Your task to perform on an android device: open app "Yahoo Mail" (install if not already installed) Image 0: 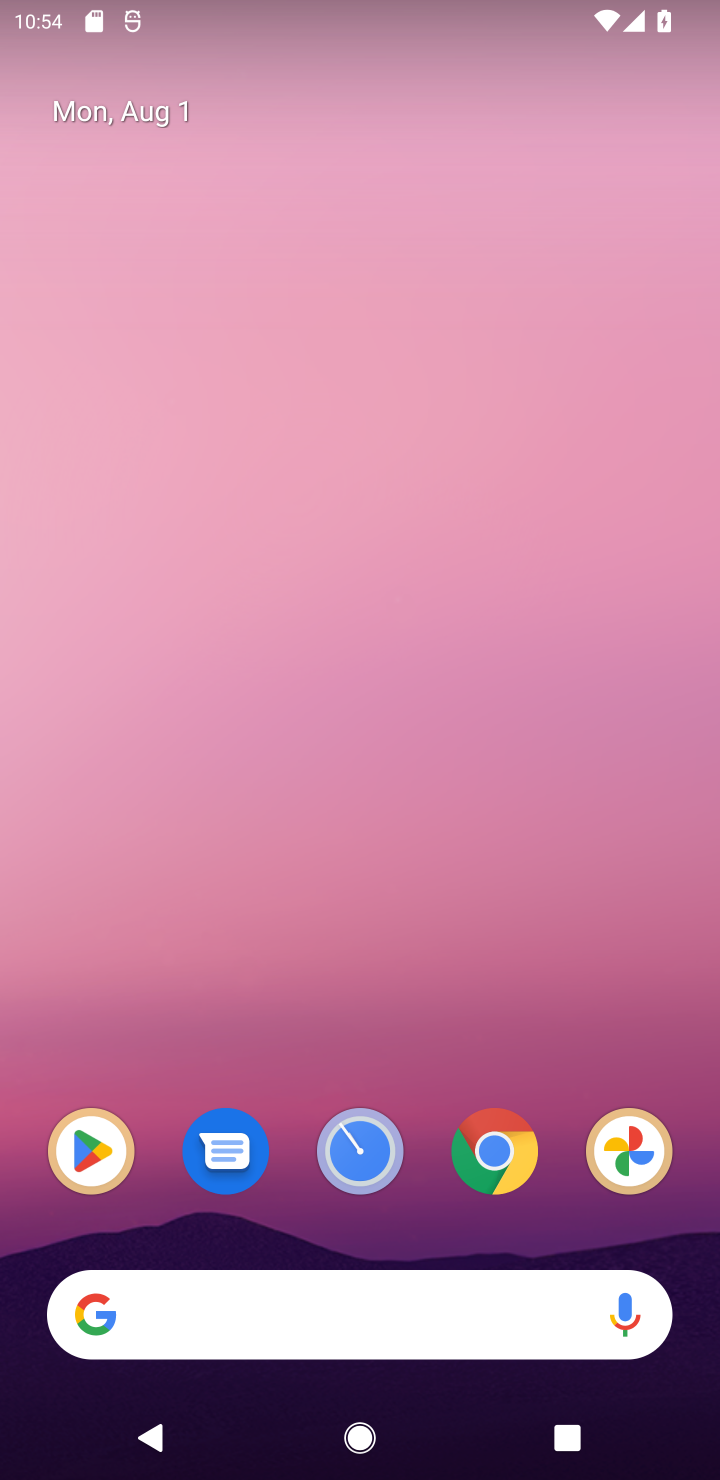
Step 0: drag from (387, 1272) to (399, 58)
Your task to perform on an android device: open app "Yahoo Mail" (install if not already installed) Image 1: 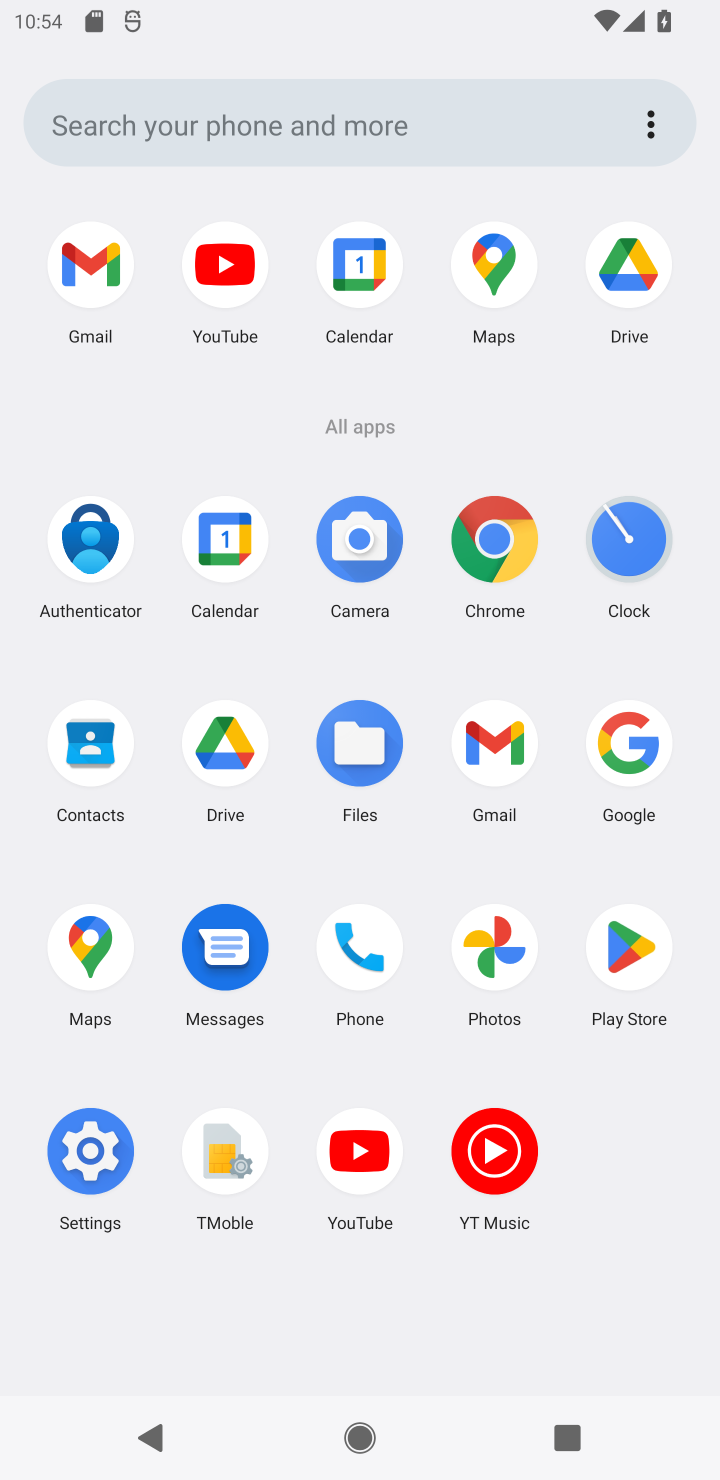
Step 1: click (634, 962)
Your task to perform on an android device: open app "Yahoo Mail" (install if not already installed) Image 2: 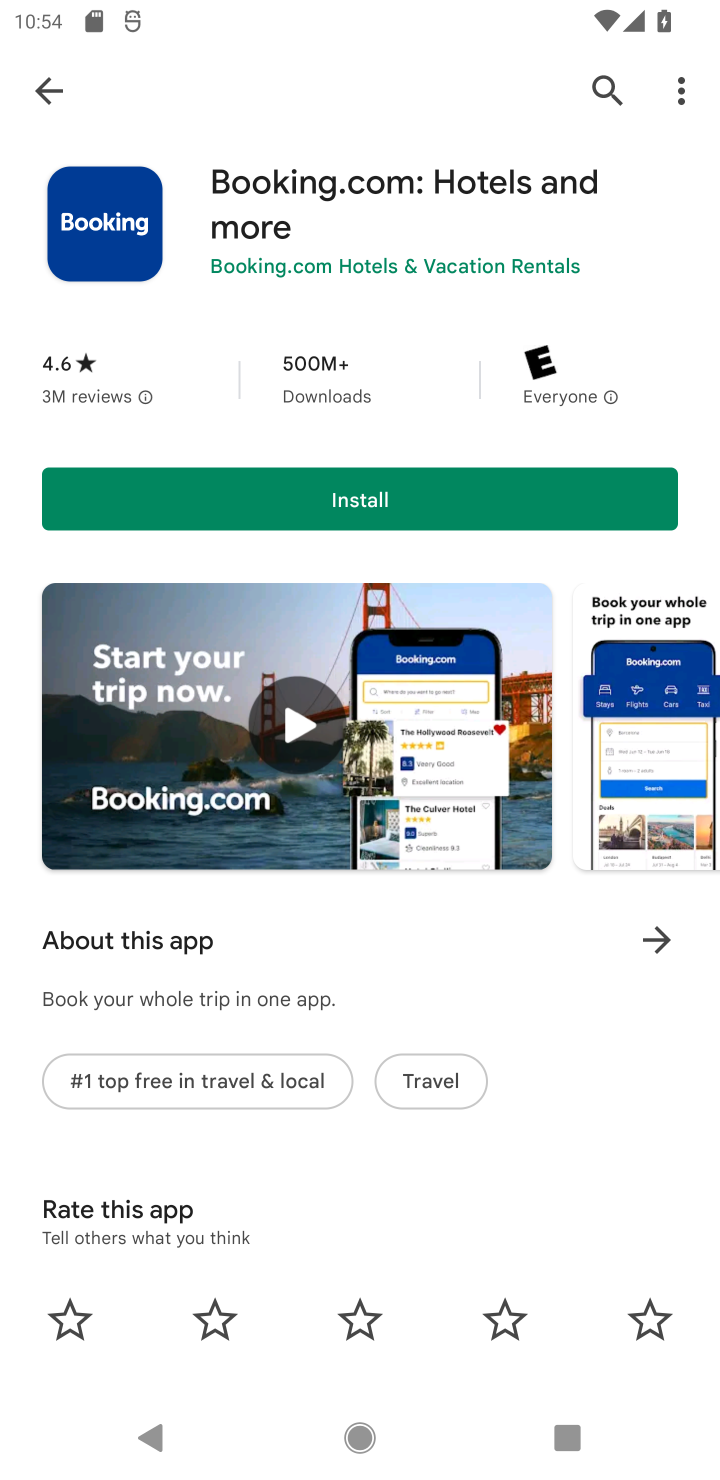
Step 2: click (46, 60)
Your task to perform on an android device: open app "Yahoo Mail" (install if not already installed) Image 3: 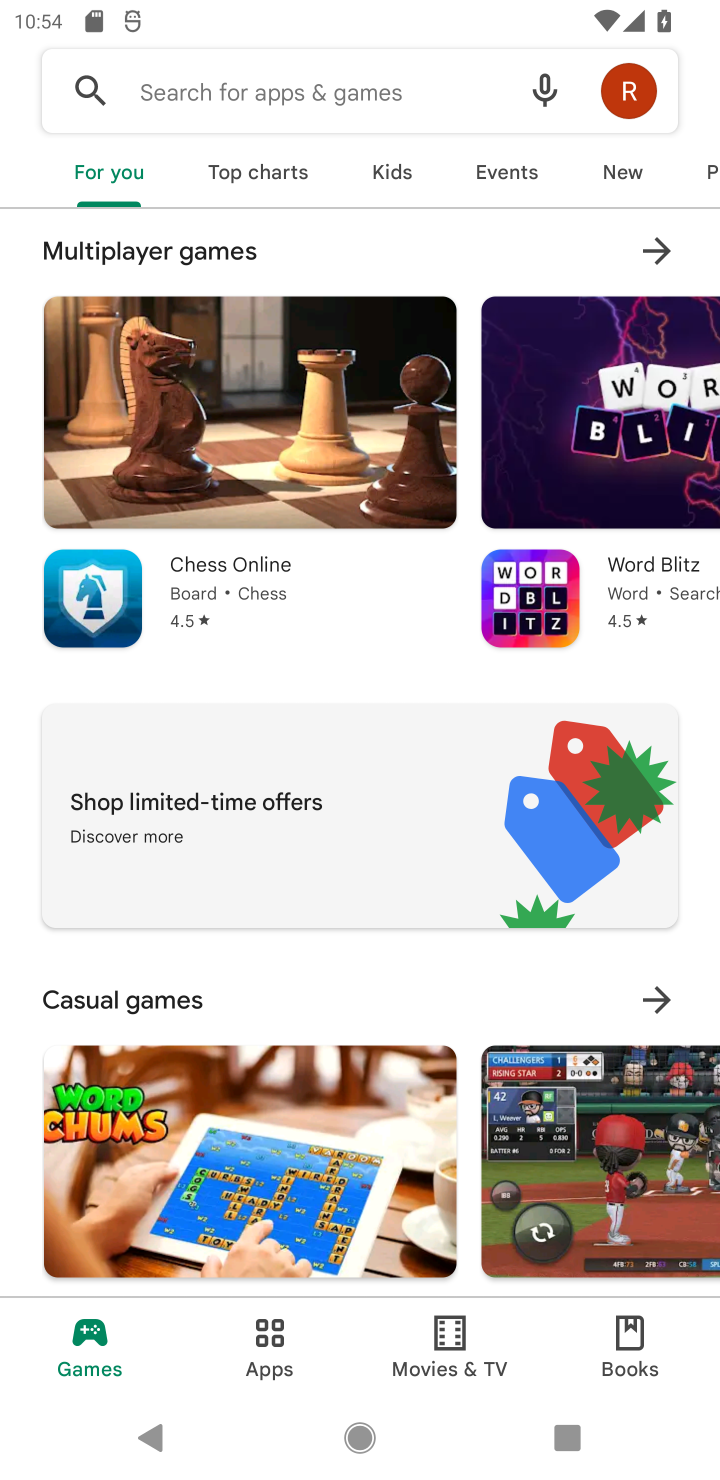
Step 3: click (190, 73)
Your task to perform on an android device: open app "Yahoo Mail" (install if not already installed) Image 4: 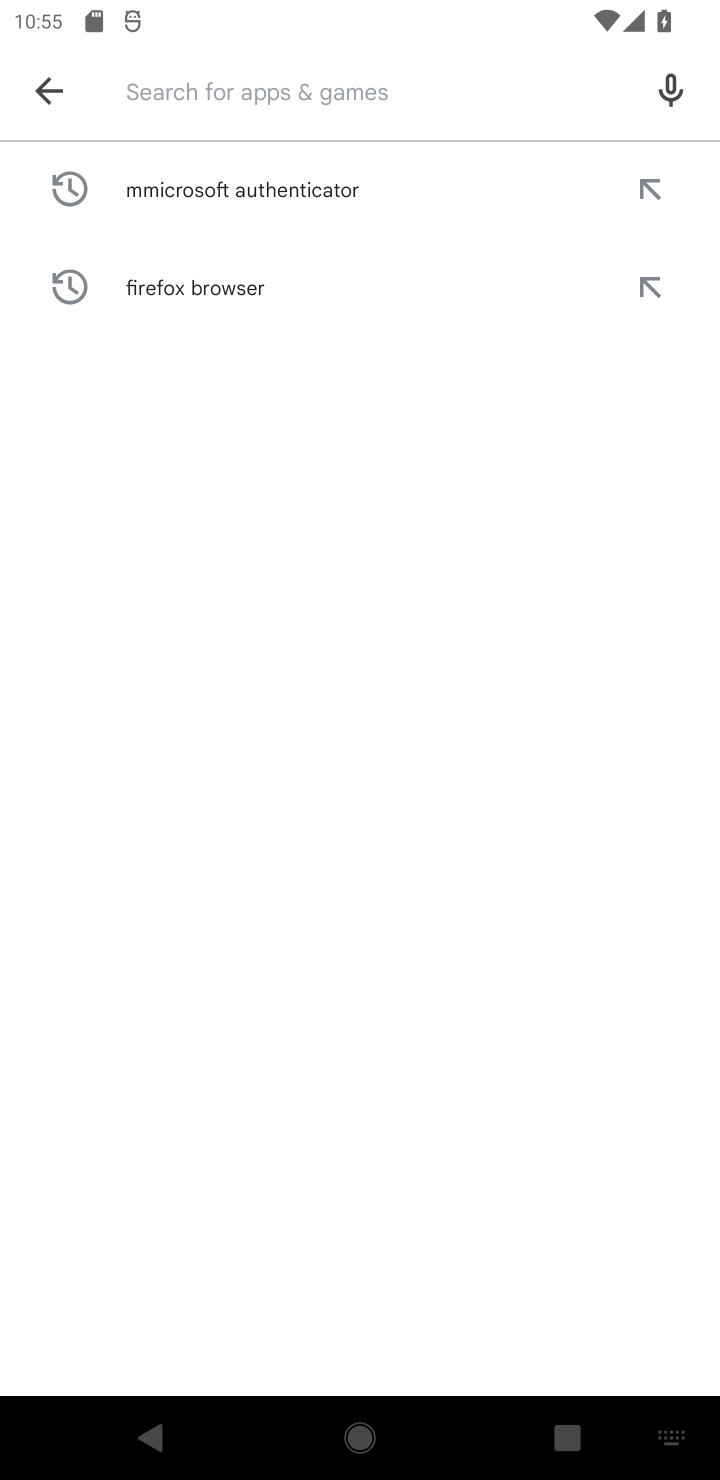
Step 4: type "Yahoo Mail"
Your task to perform on an android device: open app "Yahoo Mail" (install if not already installed) Image 5: 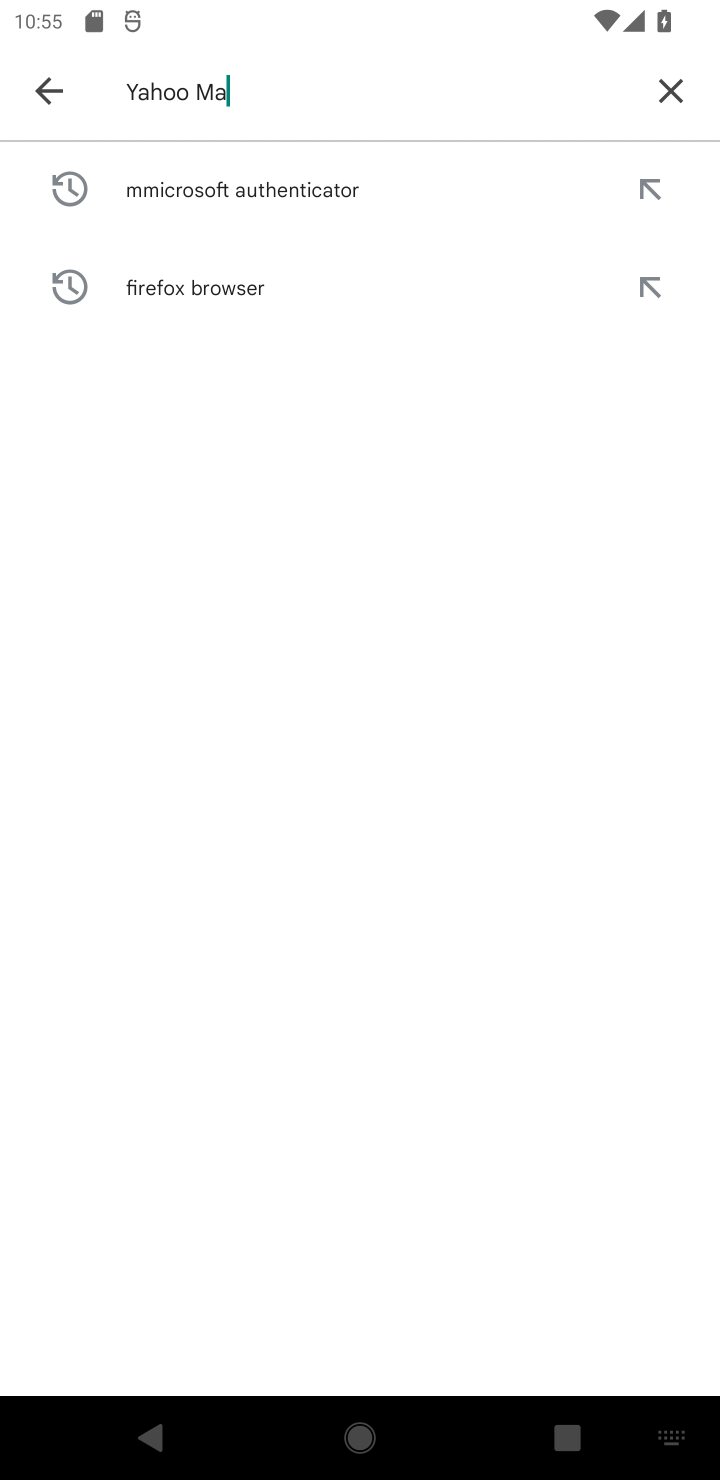
Step 5: type ""
Your task to perform on an android device: open app "Yahoo Mail" (install if not already installed) Image 6: 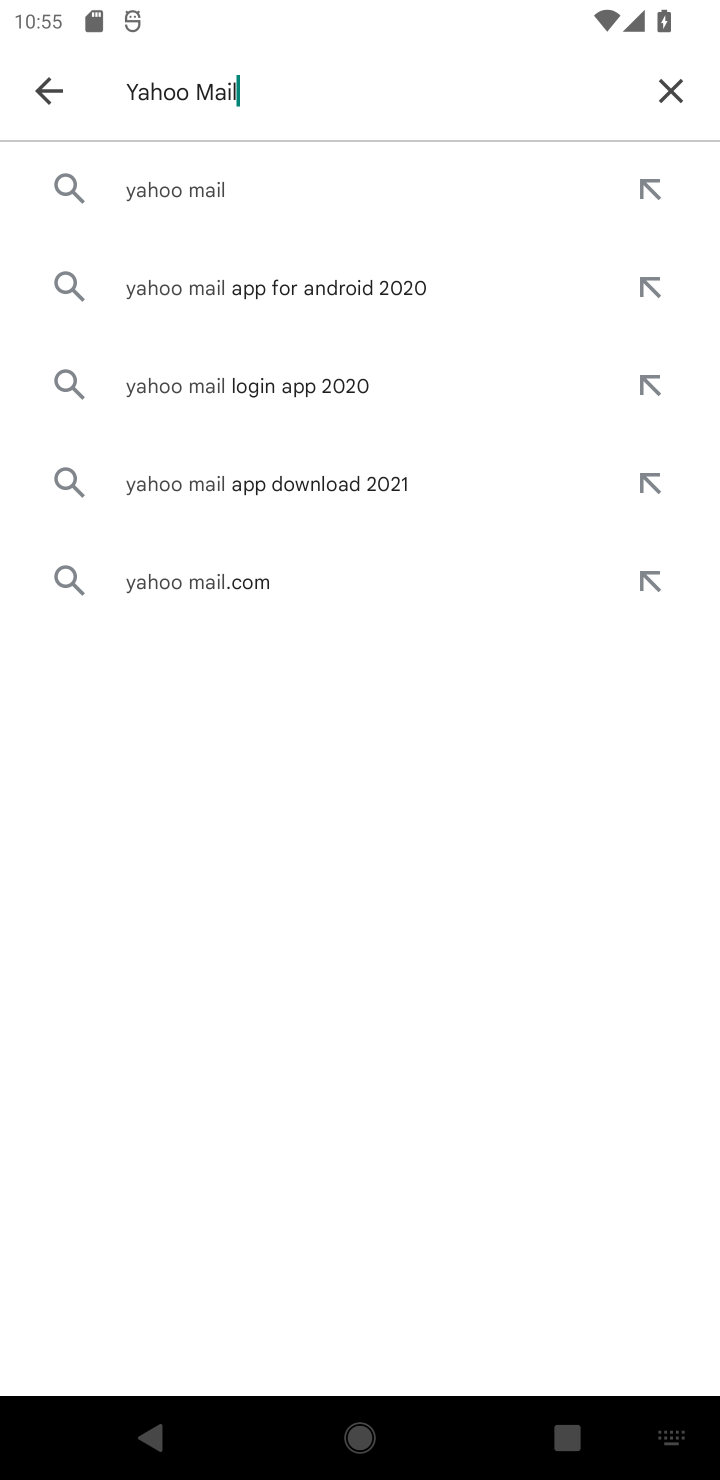
Step 6: click (204, 171)
Your task to perform on an android device: open app "Yahoo Mail" (install if not already installed) Image 7: 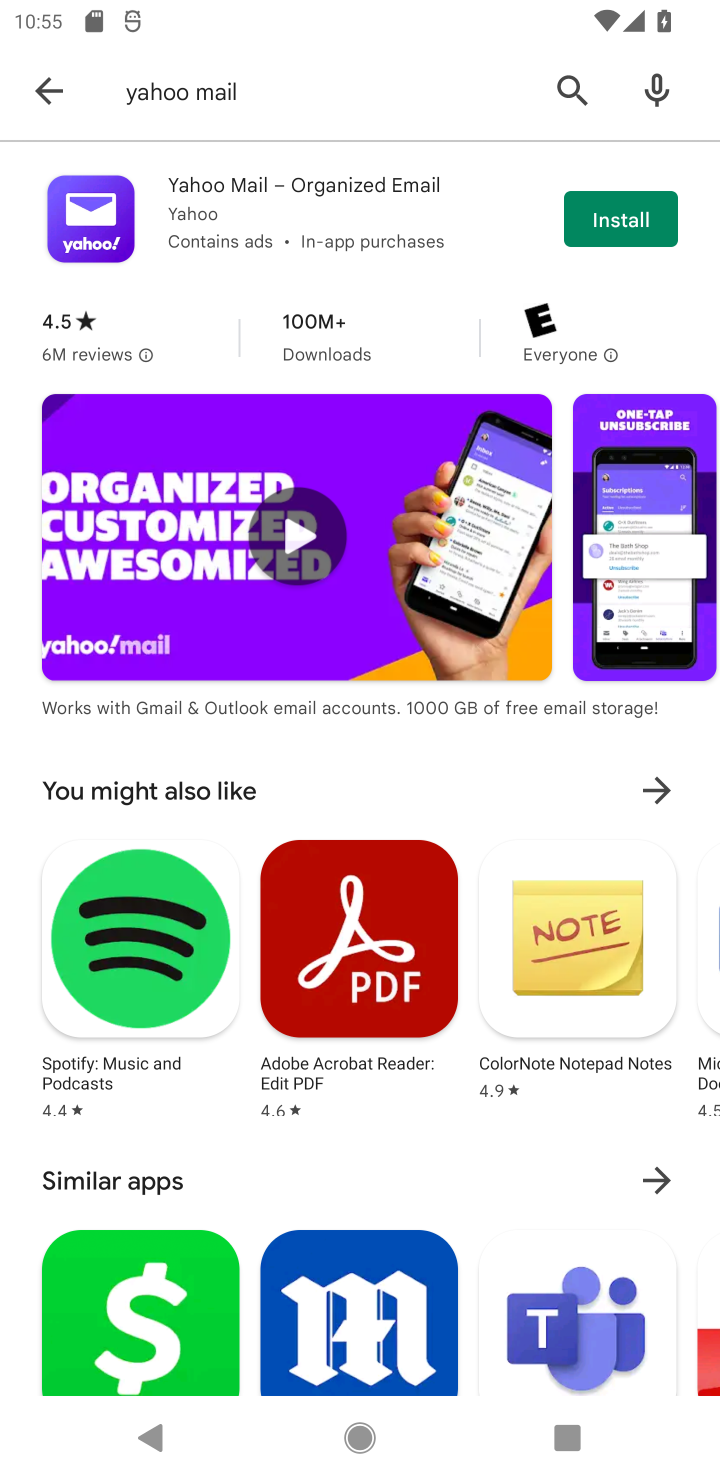
Step 7: click (582, 219)
Your task to perform on an android device: open app "Yahoo Mail" (install if not already installed) Image 8: 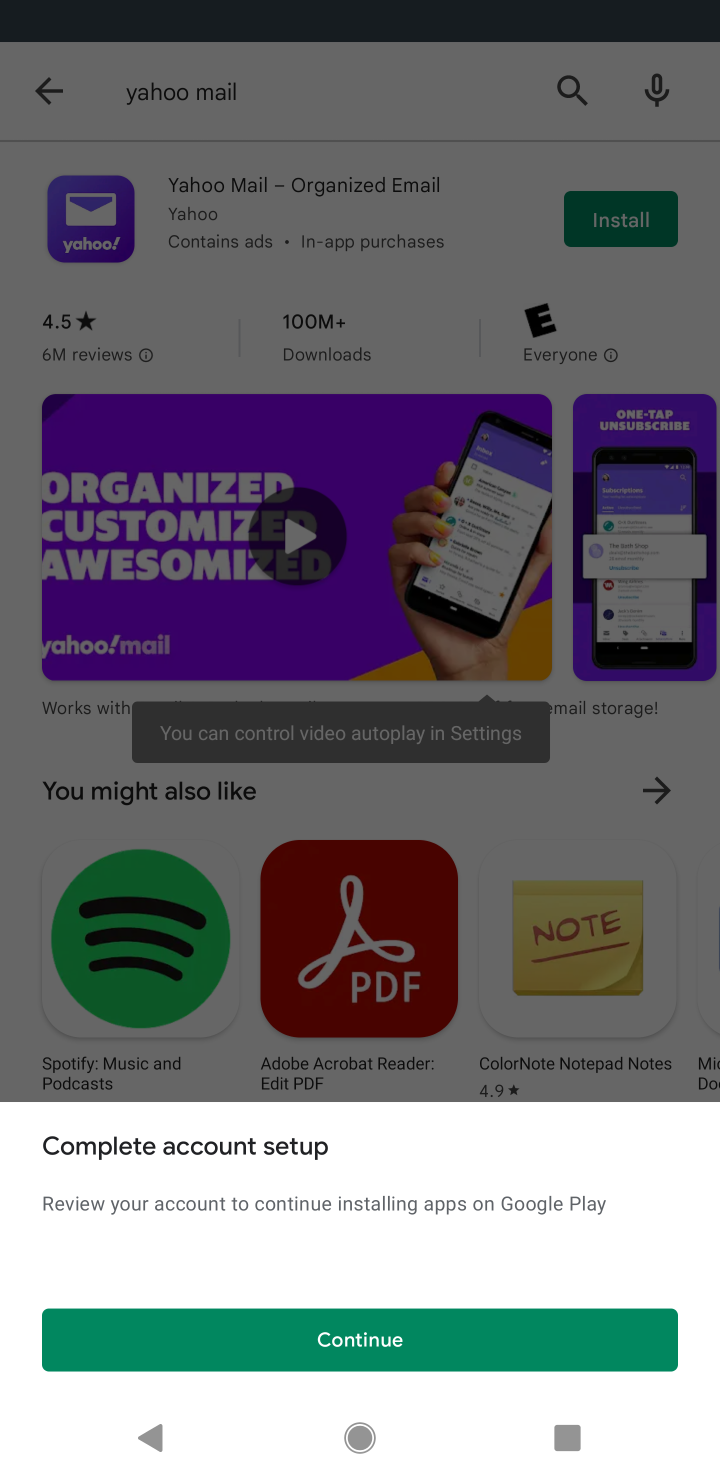
Step 8: click (448, 1360)
Your task to perform on an android device: open app "Yahoo Mail" (install if not already installed) Image 9: 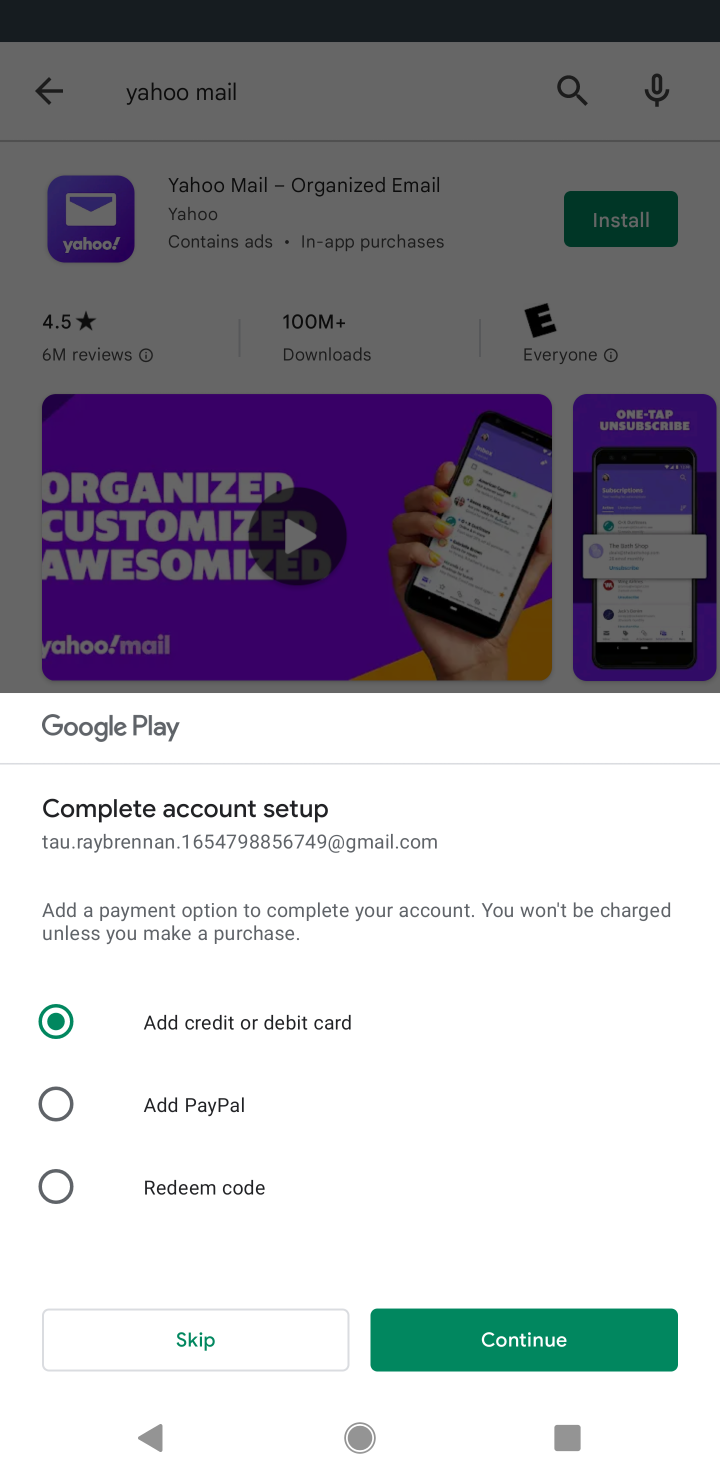
Step 9: click (235, 1330)
Your task to perform on an android device: open app "Yahoo Mail" (install if not already installed) Image 10: 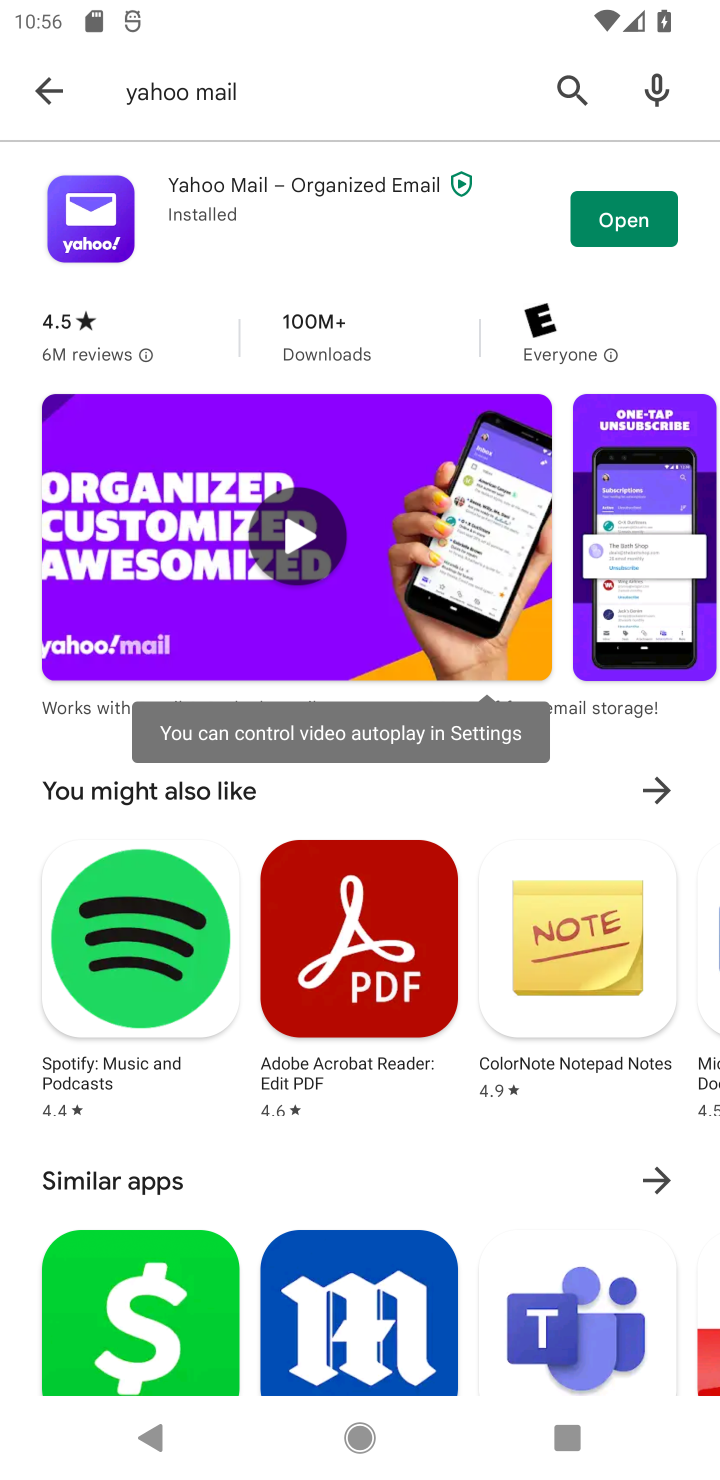
Step 10: click (629, 222)
Your task to perform on an android device: open app "Yahoo Mail" (install if not already installed) Image 11: 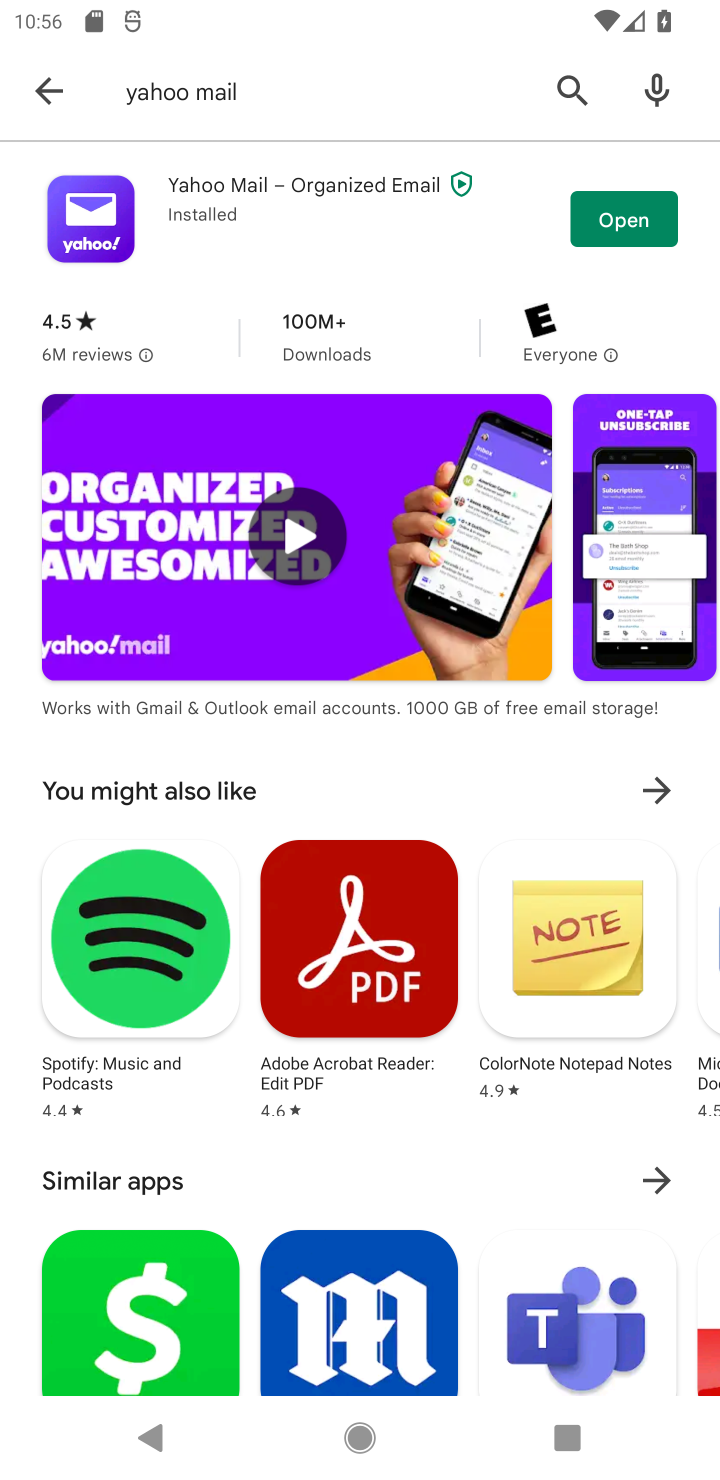
Step 11: task complete